Your task to perform on an android device: Add "dell alienware" to the cart on costco, then select checkout. Image 0: 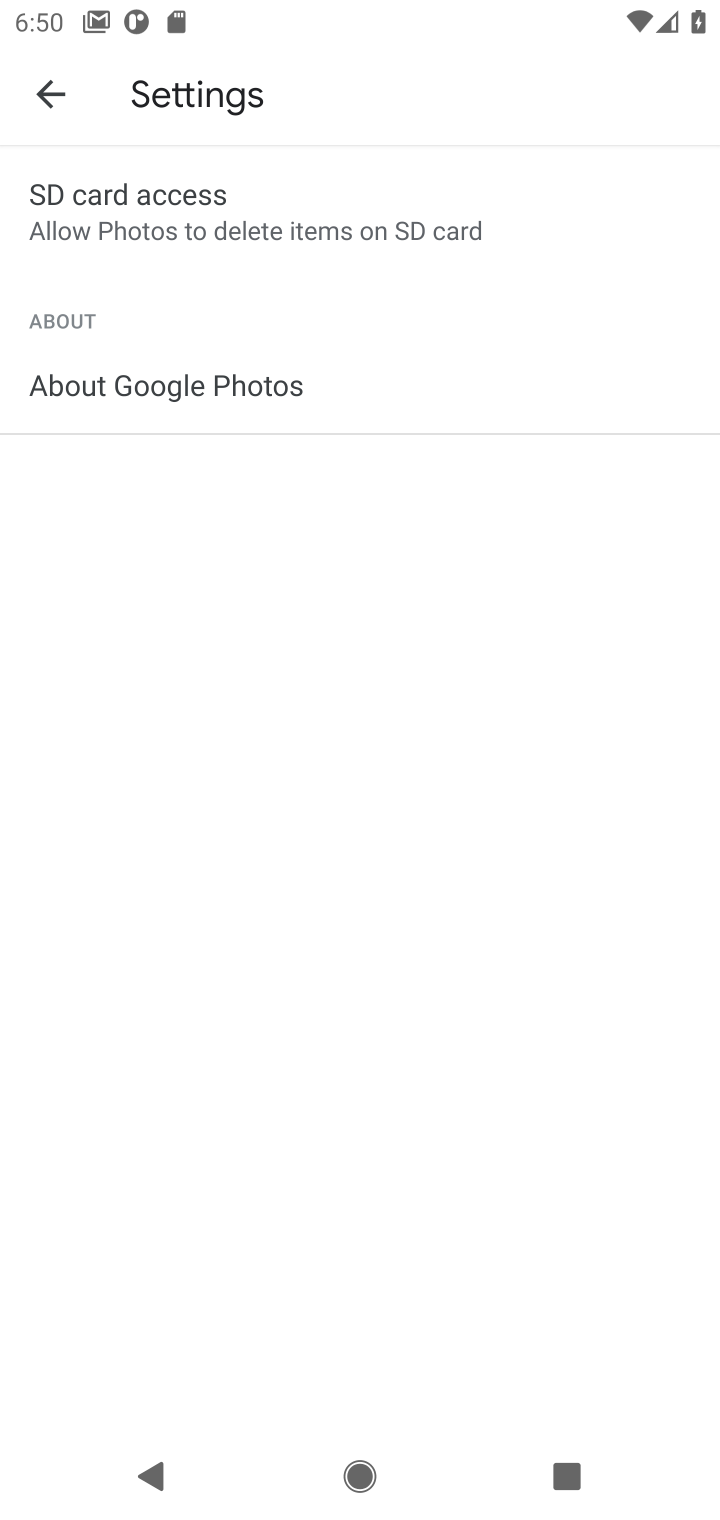
Step 0: press home button
Your task to perform on an android device: Add "dell alienware" to the cart on costco, then select checkout. Image 1: 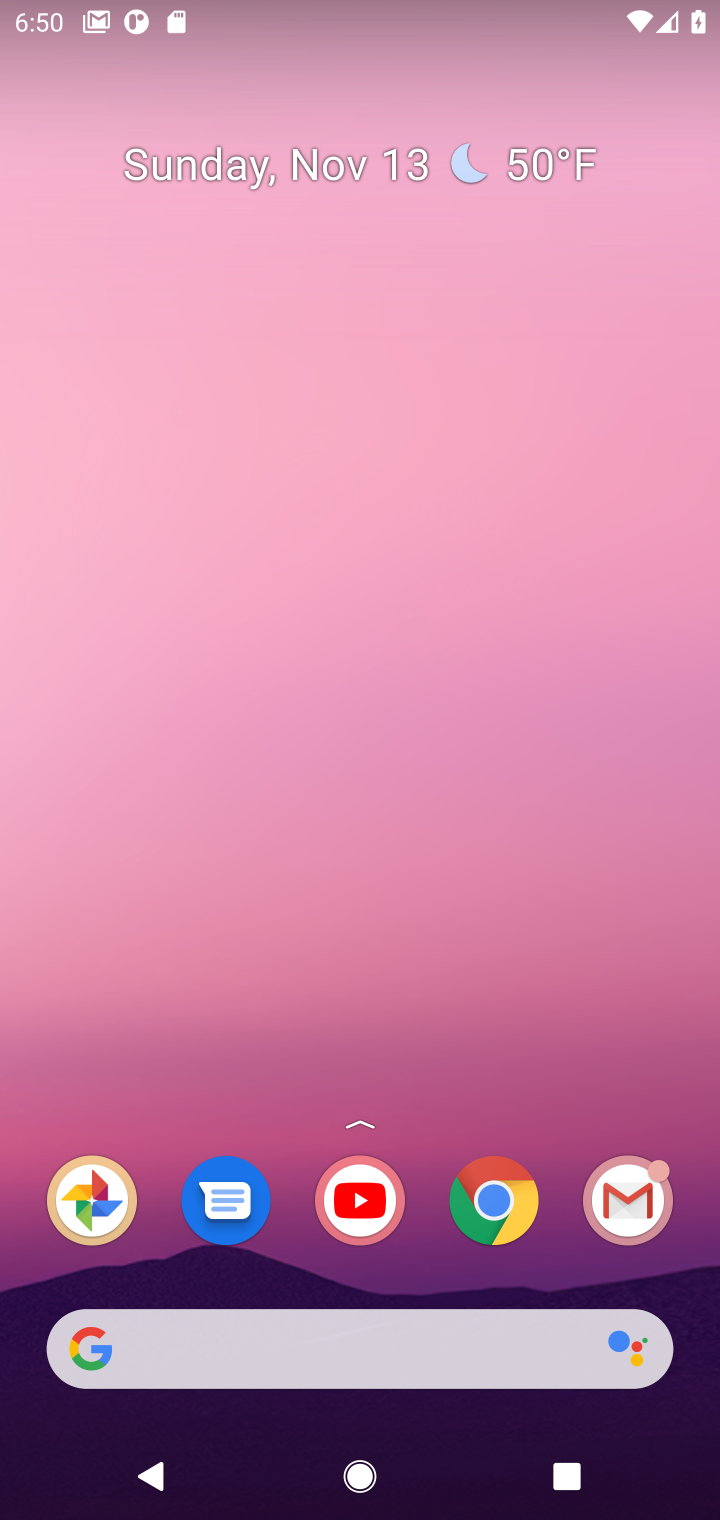
Step 1: click (491, 1203)
Your task to perform on an android device: Add "dell alienware" to the cart on costco, then select checkout. Image 2: 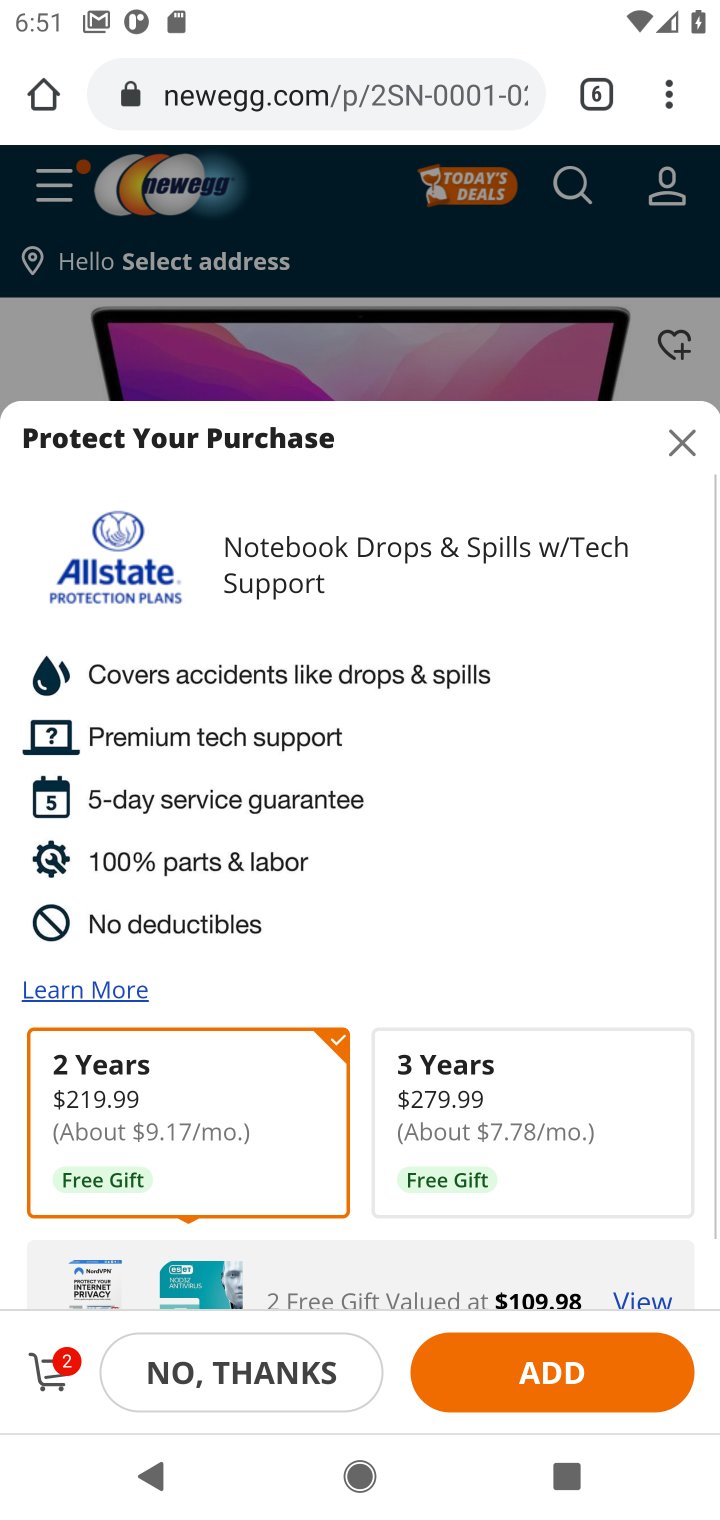
Step 2: click (601, 91)
Your task to perform on an android device: Add "dell alienware" to the cart on costco, then select checkout. Image 3: 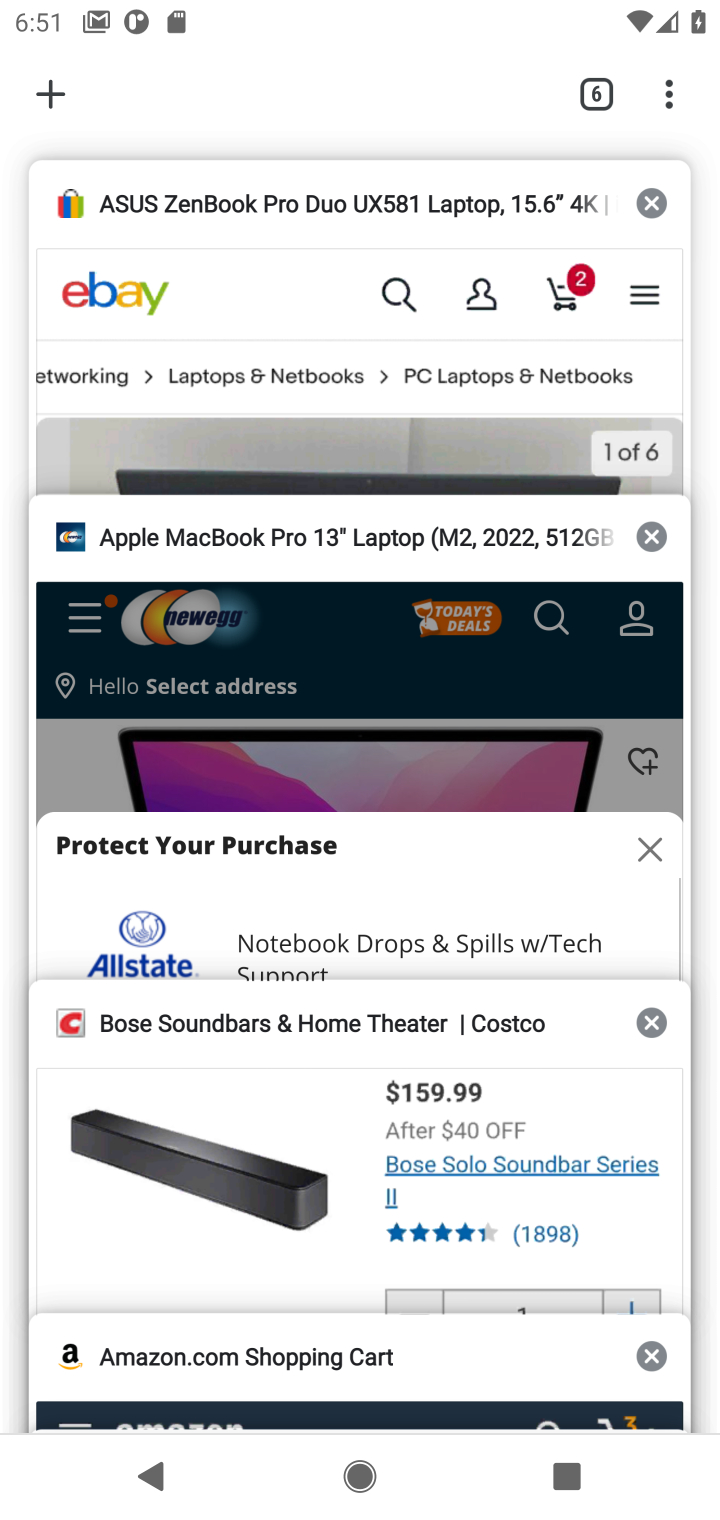
Step 3: click (330, 1208)
Your task to perform on an android device: Add "dell alienware" to the cart on costco, then select checkout. Image 4: 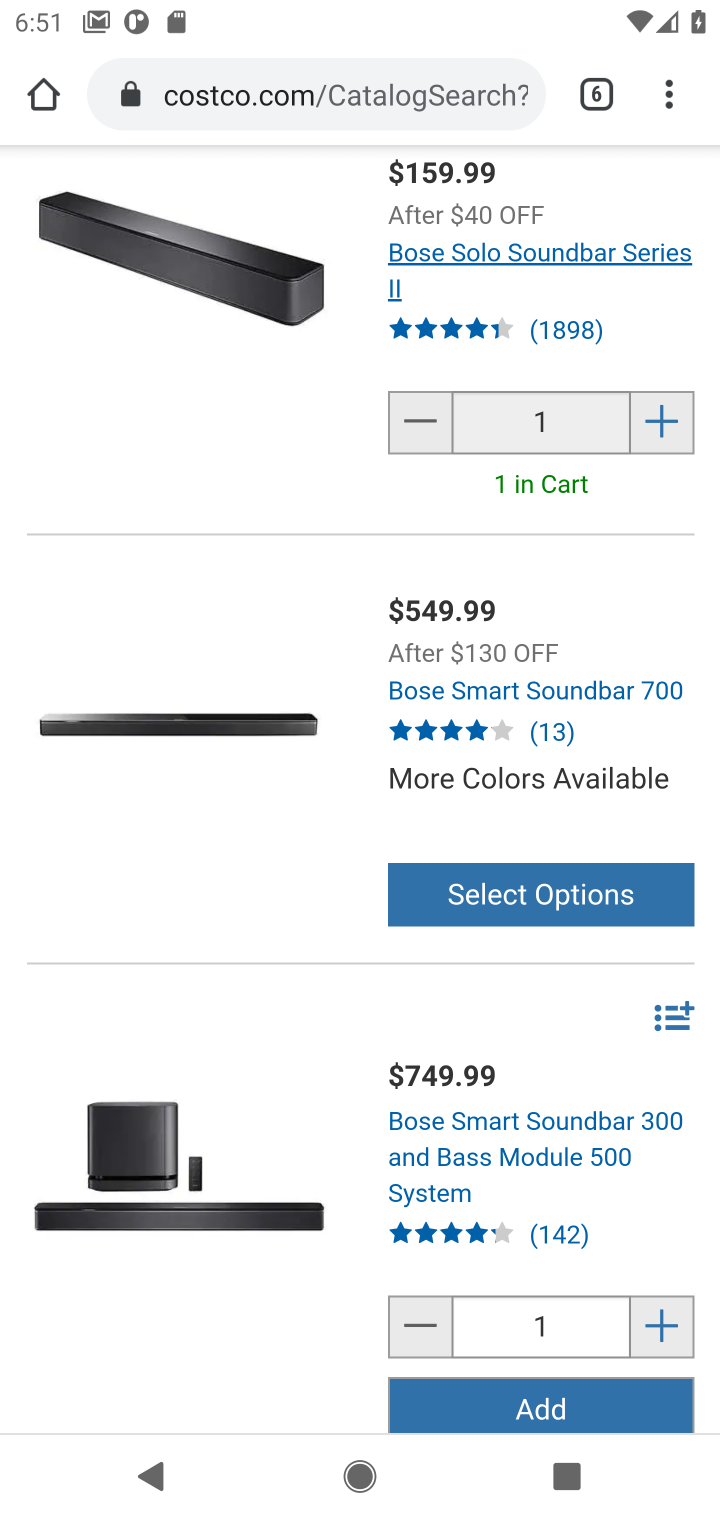
Step 4: drag from (328, 192) to (295, 997)
Your task to perform on an android device: Add "dell alienware" to the cart on costco, then select checkout. Image 5: 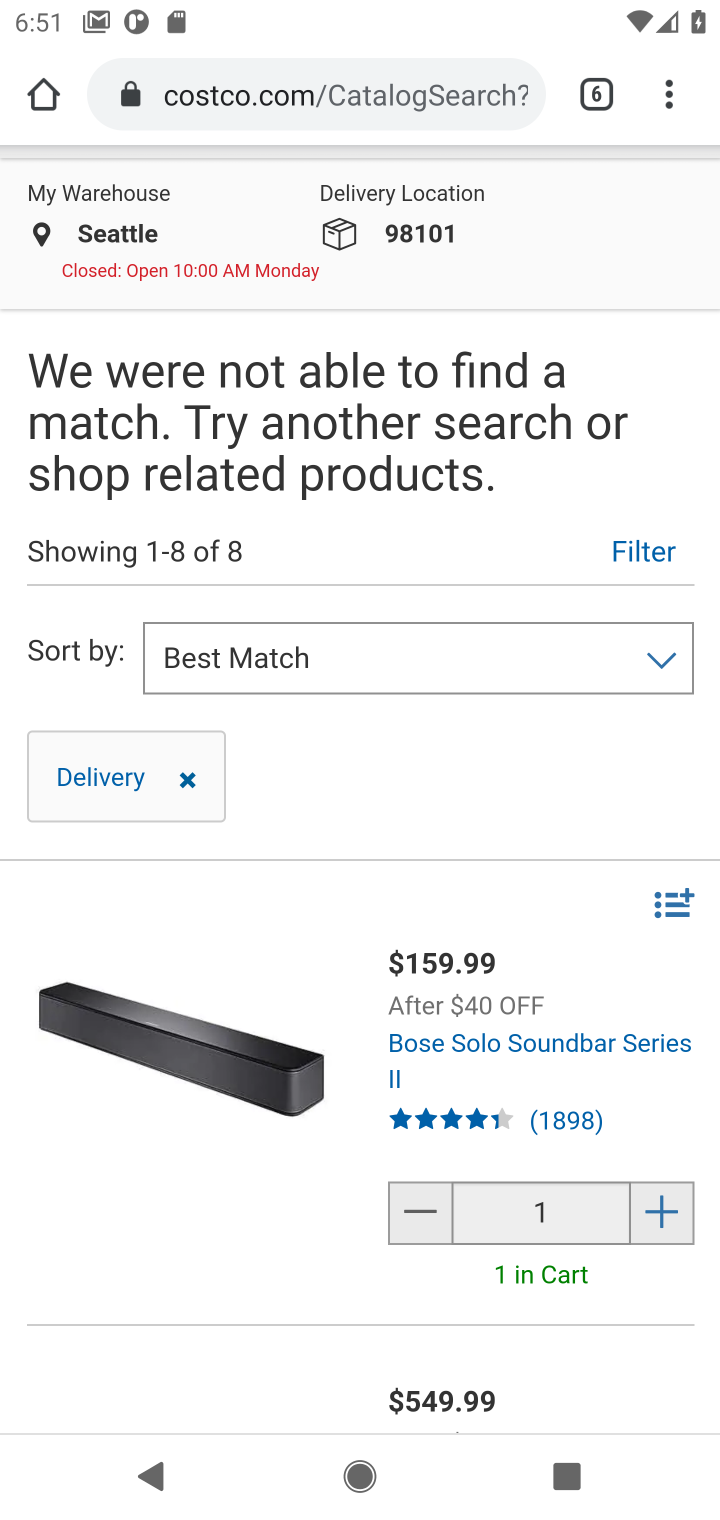
Step 5: drag from (577, 205) to (448, 780)
Your task to perform on an android device: Add "dell alienware" to the cart on costco, then select checkout. Image 6: 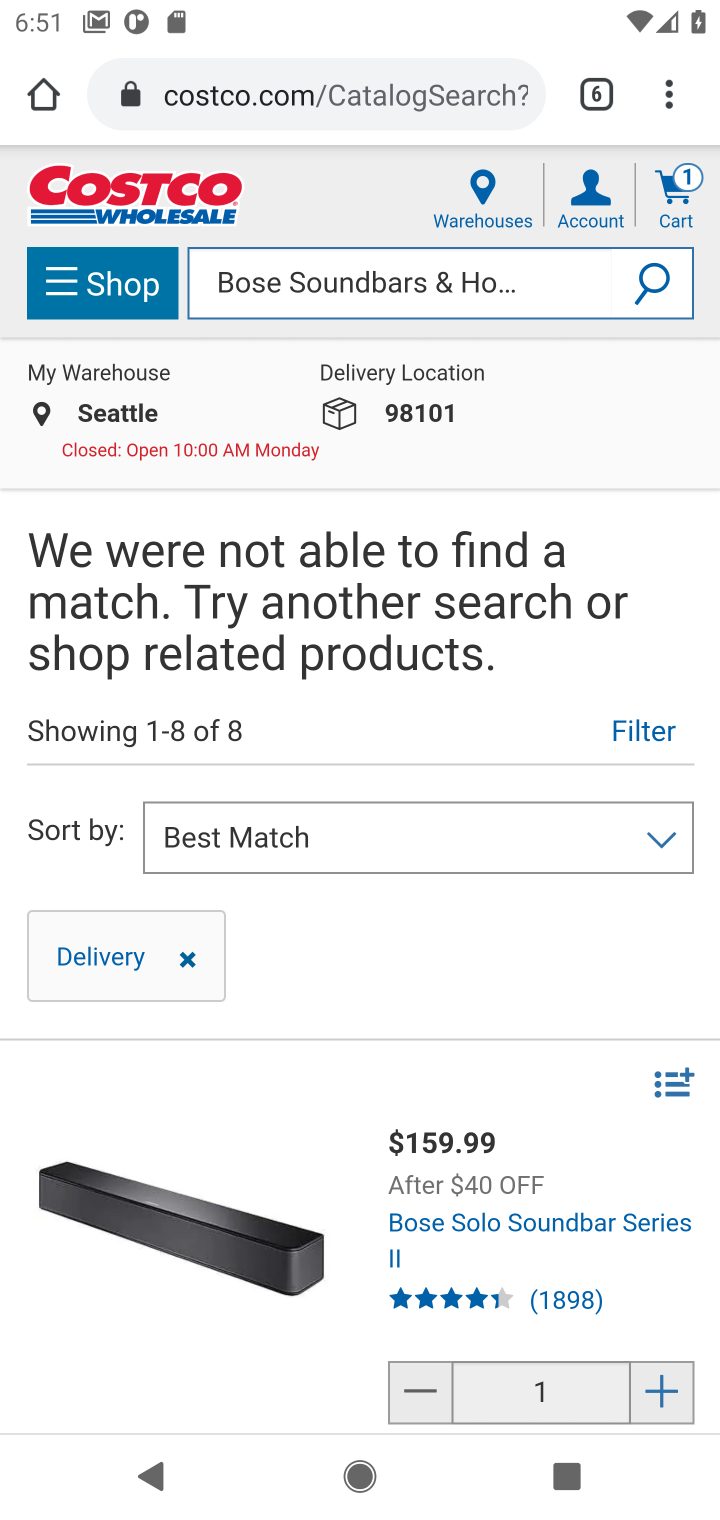
Step 6: click (520, 288)
Your task to perform on an android device: Add "dell alienware" to the cart on costco, then select checkout. Image 7: 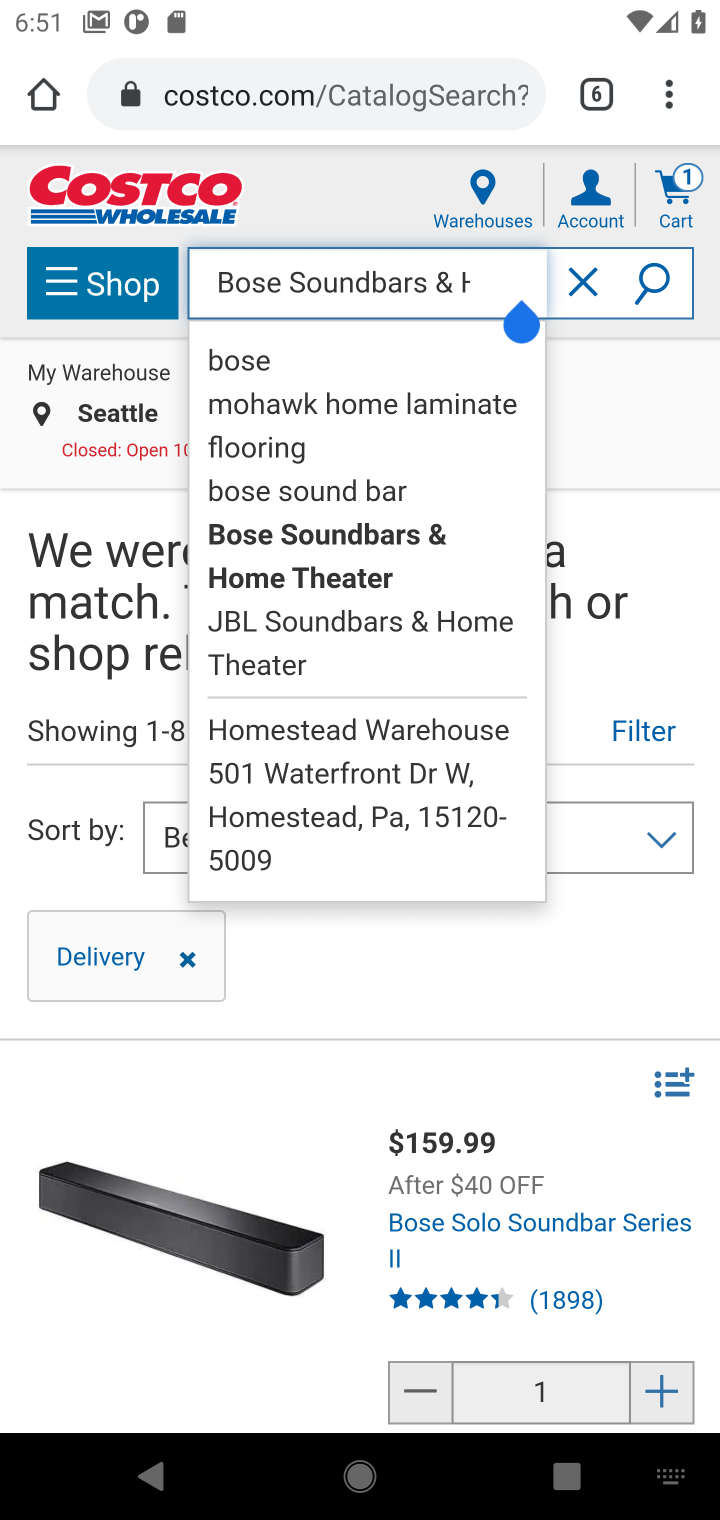
Step 7: click (577, 285)
Your task to perform on an android device: Add "dell alienware" to the cart on costco, then select checkout. Image 8: 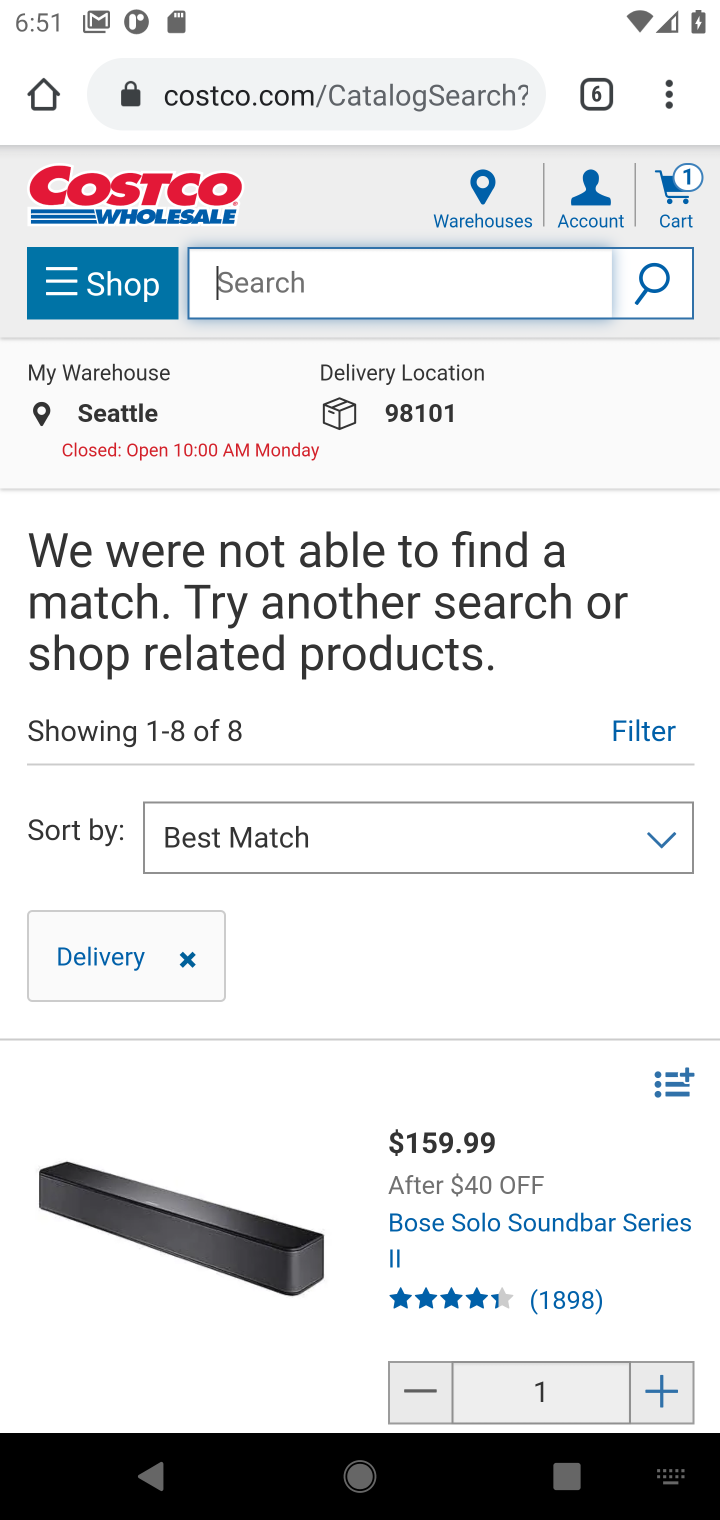
Step 8: type "dell alienware"
Your task to perform on an android device: Add "dell alienware" to the cart on costco, then select checkout. Image 9: 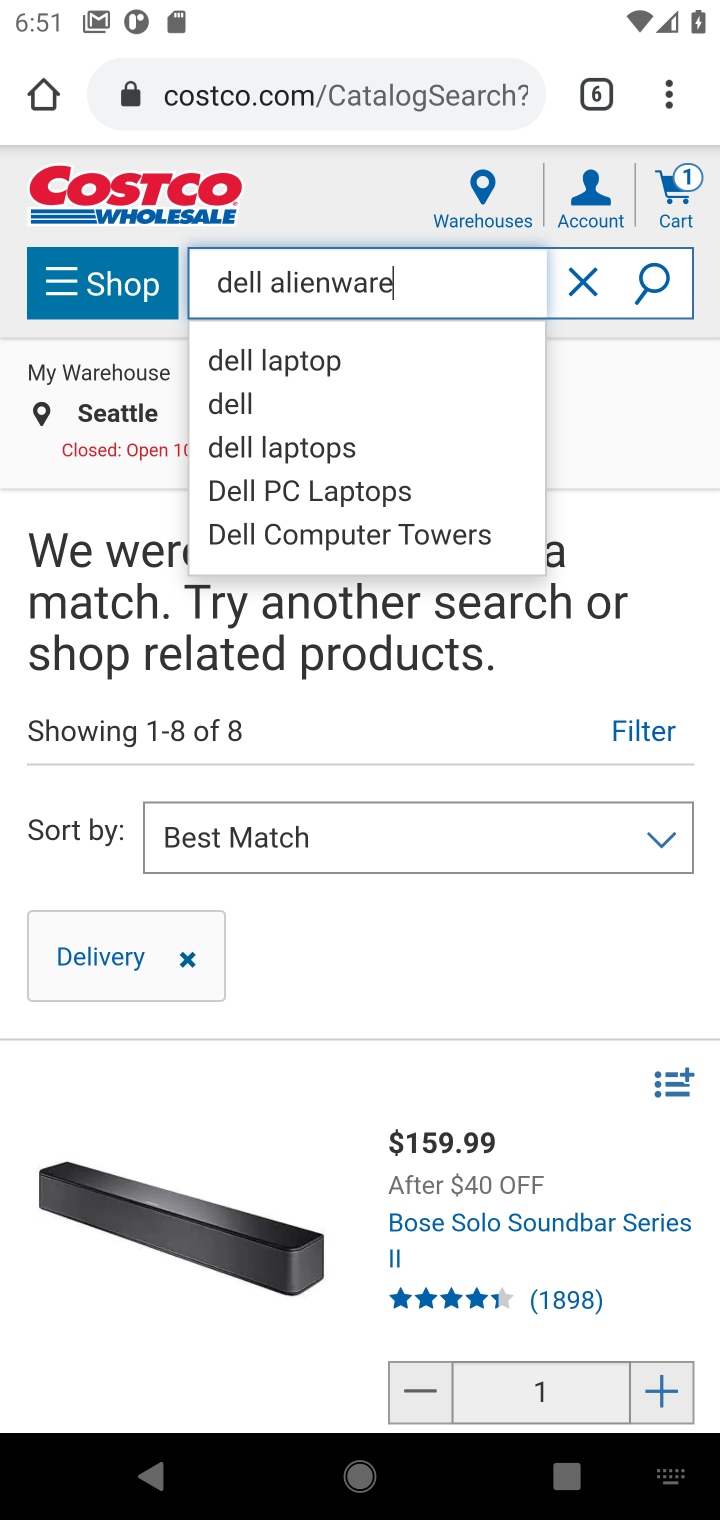
Step 9: click (649, 271)
Your task to perform on an android device: Add "dell alienware" to the cart on costco, then select checkout. Image 10: 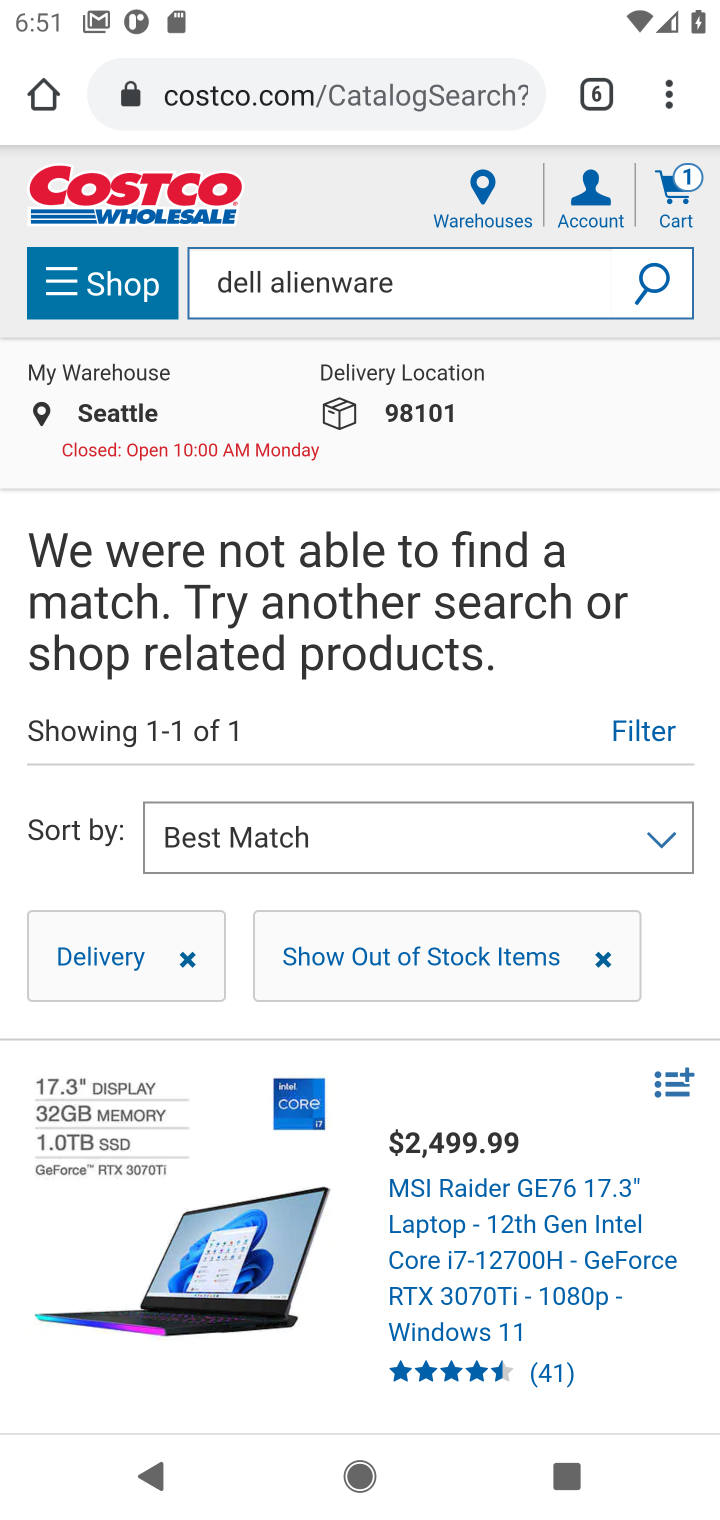
Step 10: drag from (529, 1112) to (715, 174)
Your task to perform on an android device: Add "dell alienware" to the cart on costco, then select checkout. Image 11: 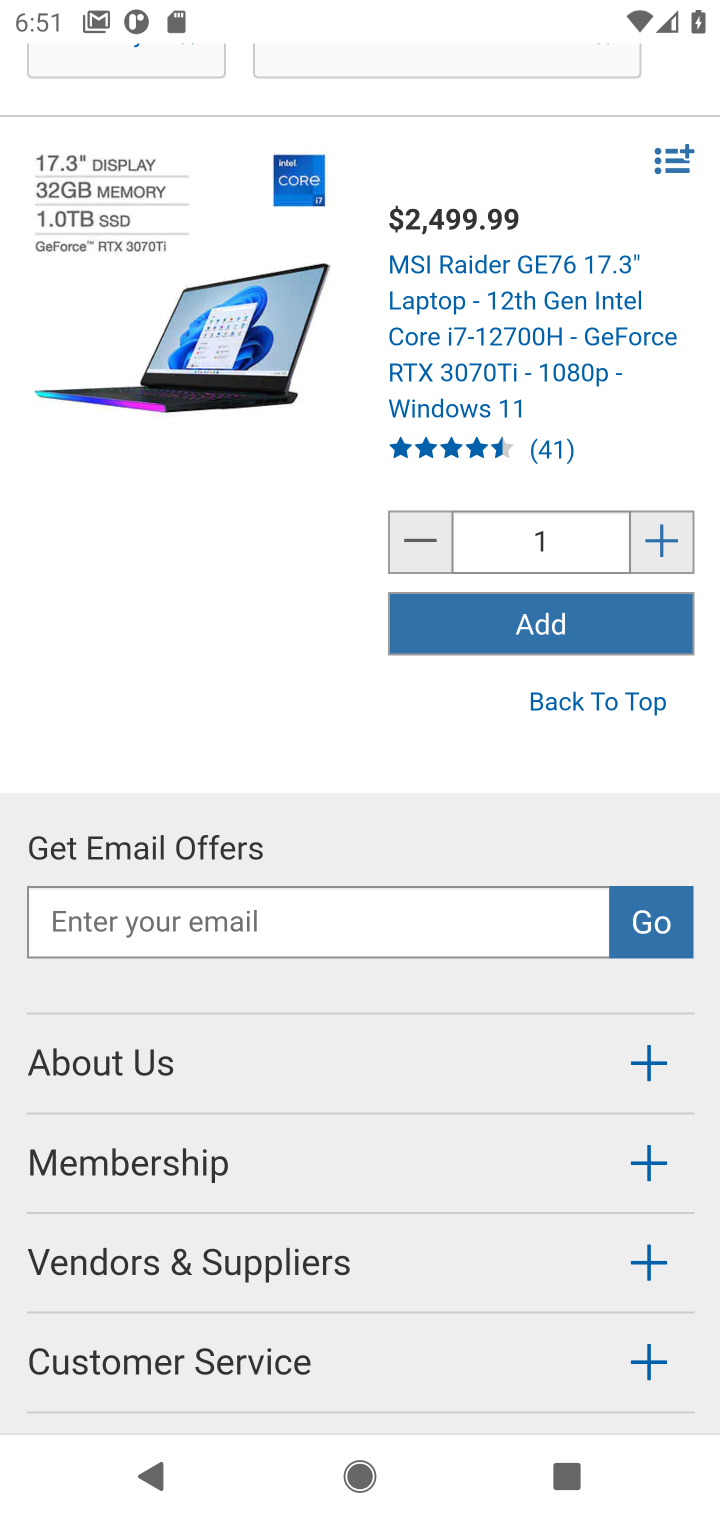
Step 11: drag from (304, 570) to (208, 1281)
Your task to perform on an android device: Add "dell alienware" to the cart on costco, then select checkout. Image 12: 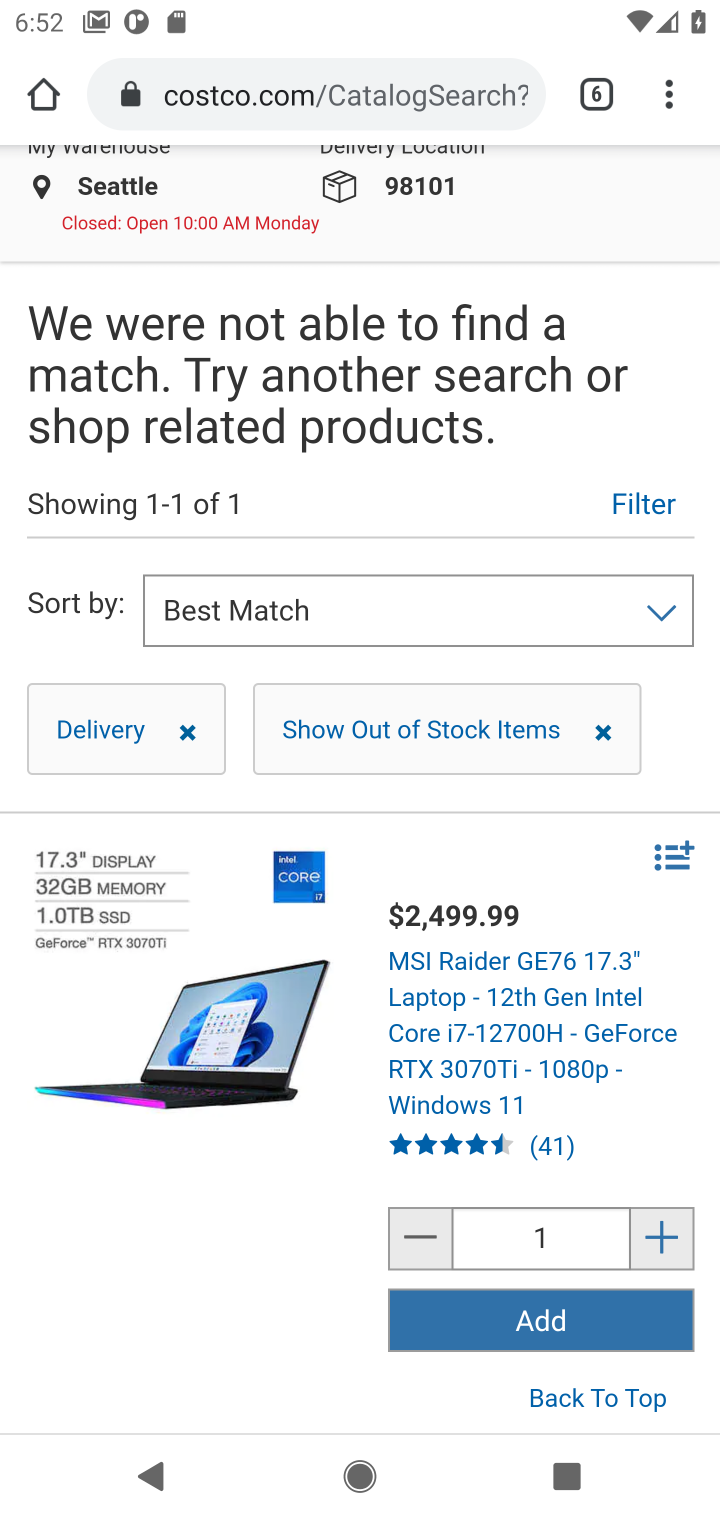
Step 12: drag from (477, 436) to (281, 1309)
Your task to perform on an android device: Add "dell alienware" to the cart on costco, then select checkout. Image 13: 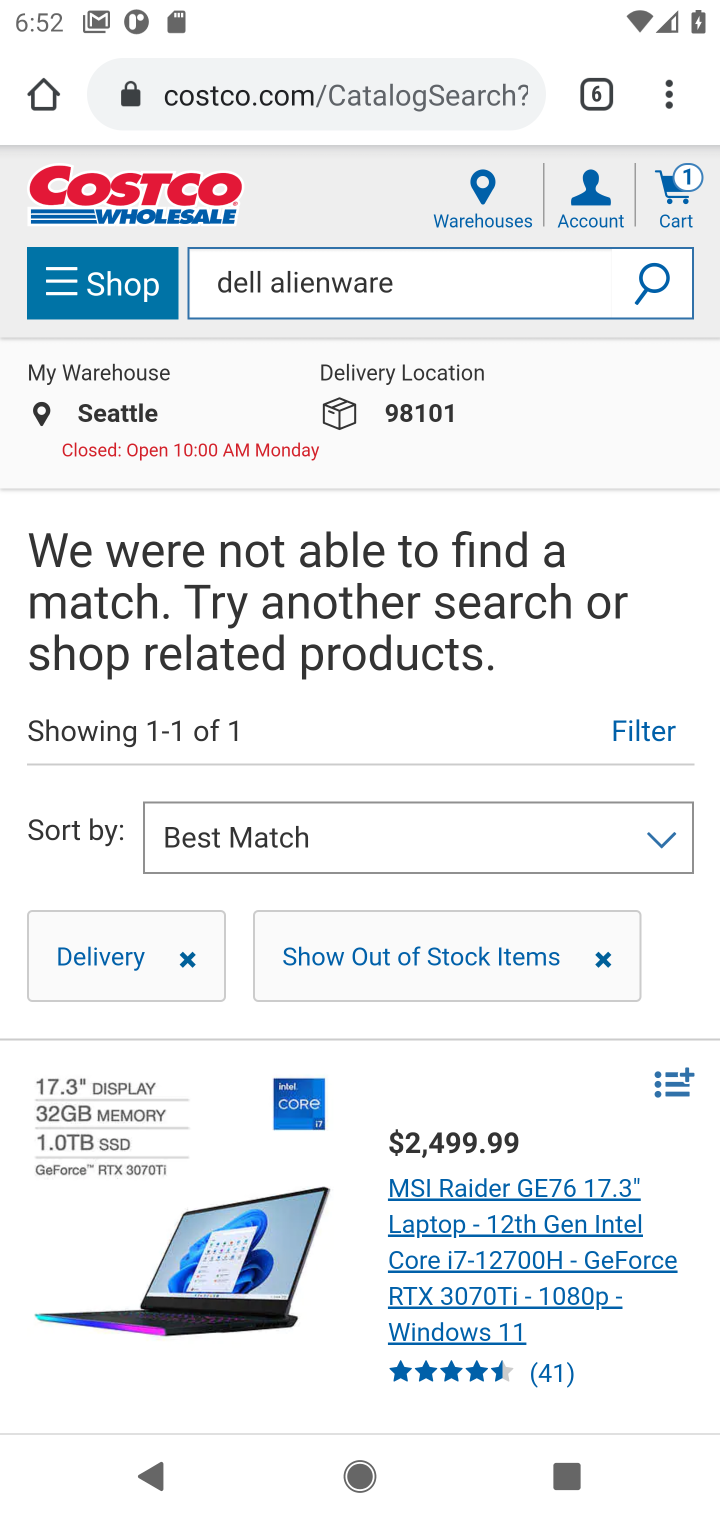
Step 13: click (428, 298)
Your task to perform on an android device: Add "dell alienware" to the cart on costco, then select checkout. Image 14: 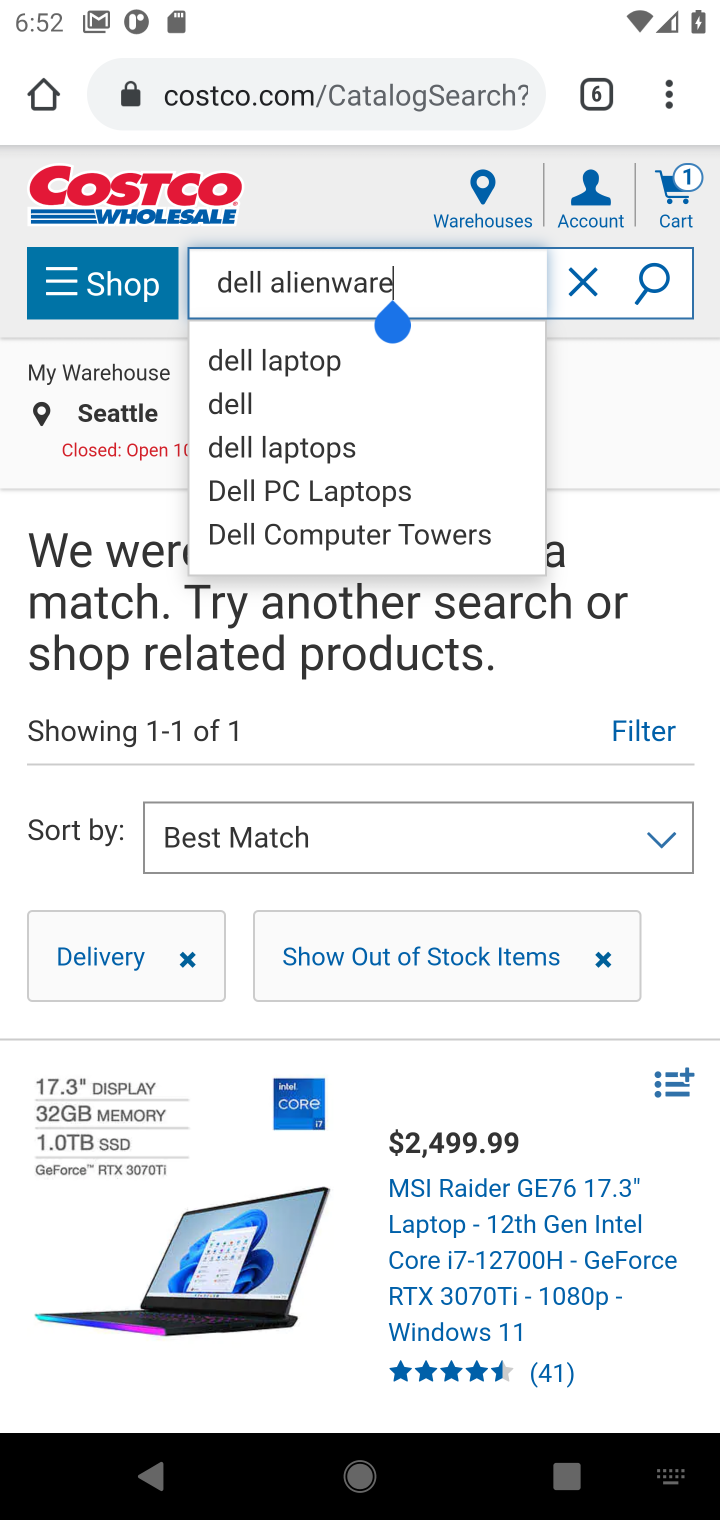
Step 14: click (273, 360)
Your task to perform on an android device: Add "dell alienware" to the cart on costco, then select checkout. Image 15: 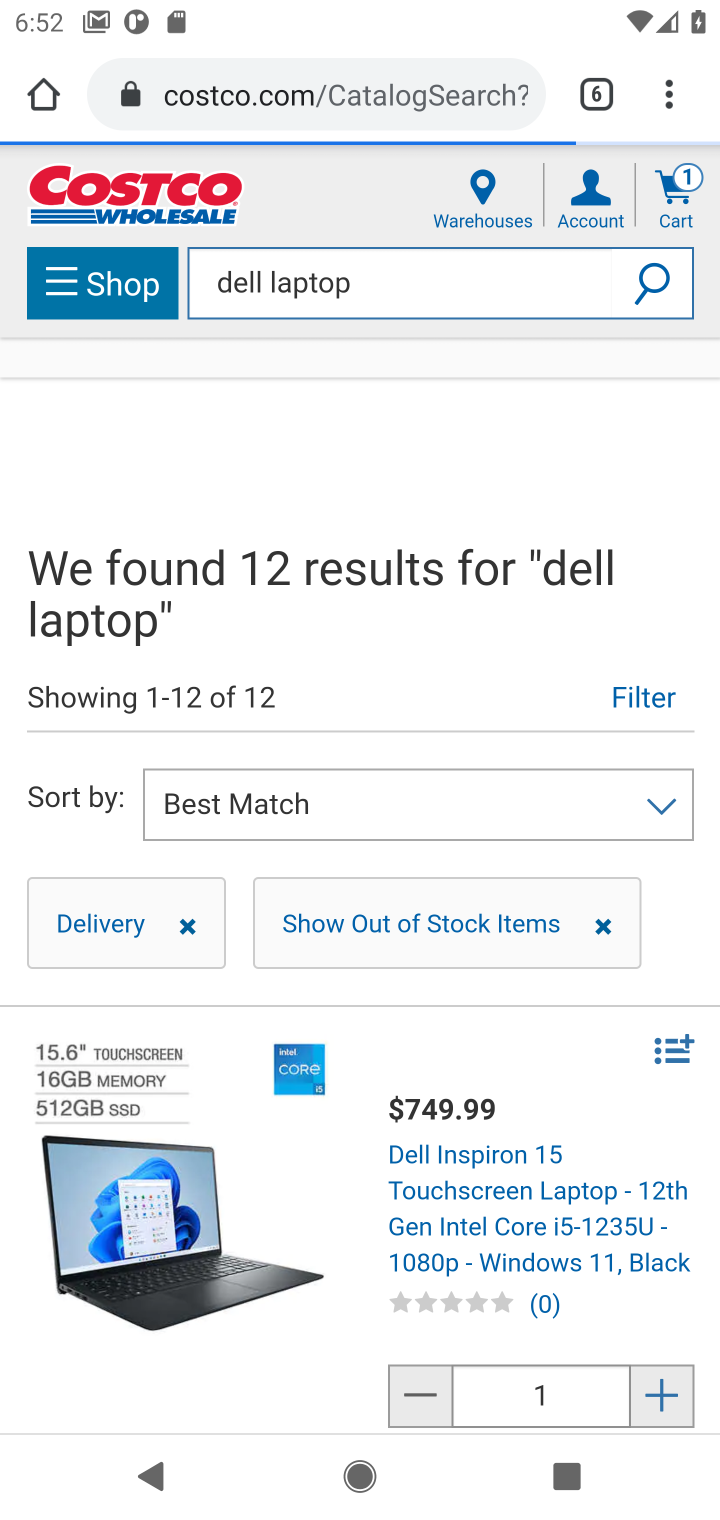
Step 15: task complete